Your task to perform on an android device: turn on javascript in the chrome app Image 0: 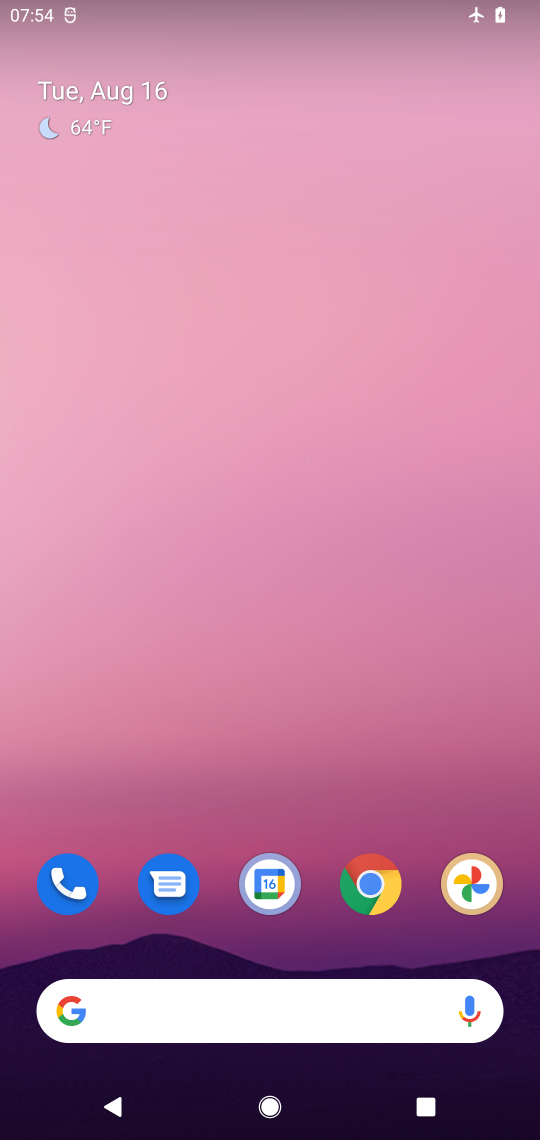
Step 0: press home button
Your task to perform on an android device: turn on javascript in the chrome app Image 1: 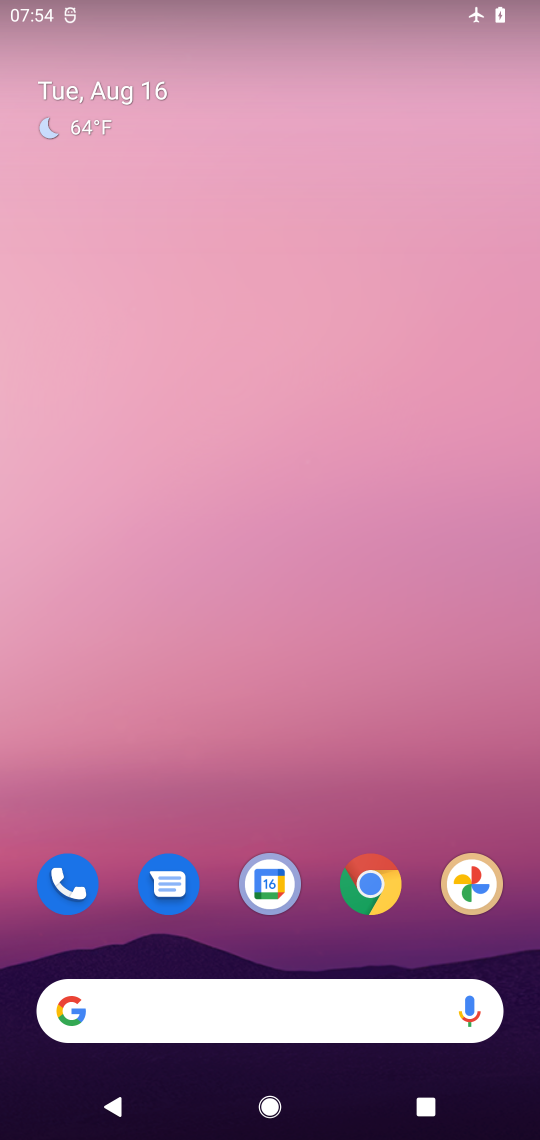
Step 1: click (376, 888)
Your task to perform on an android device: turn on javascript in the chrome app Image 2: 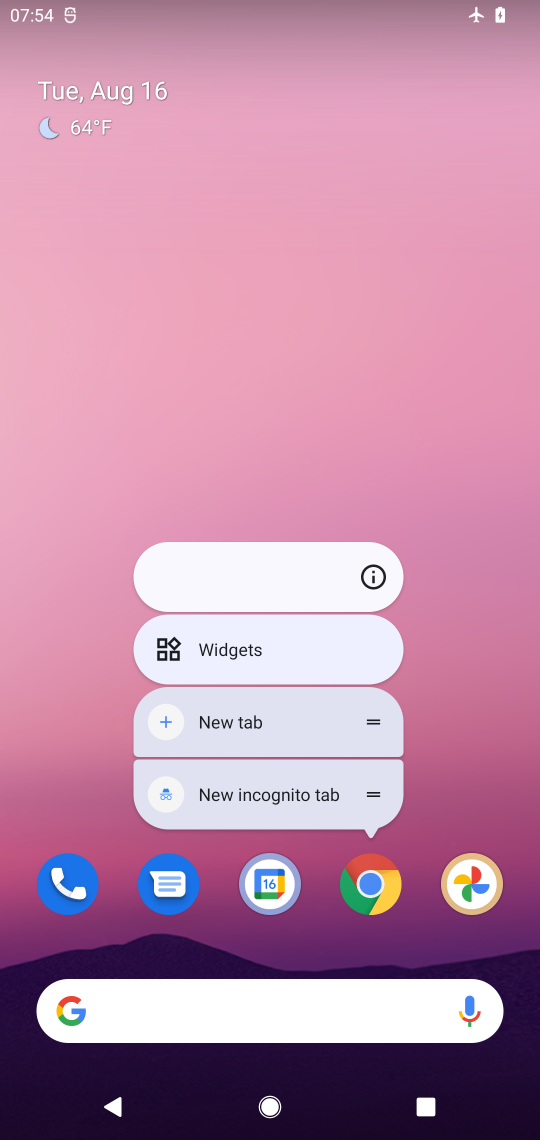
Step 2: click (402, 902)
Your task to perform on an android device: turn on javascript in the chrome app Image 3: 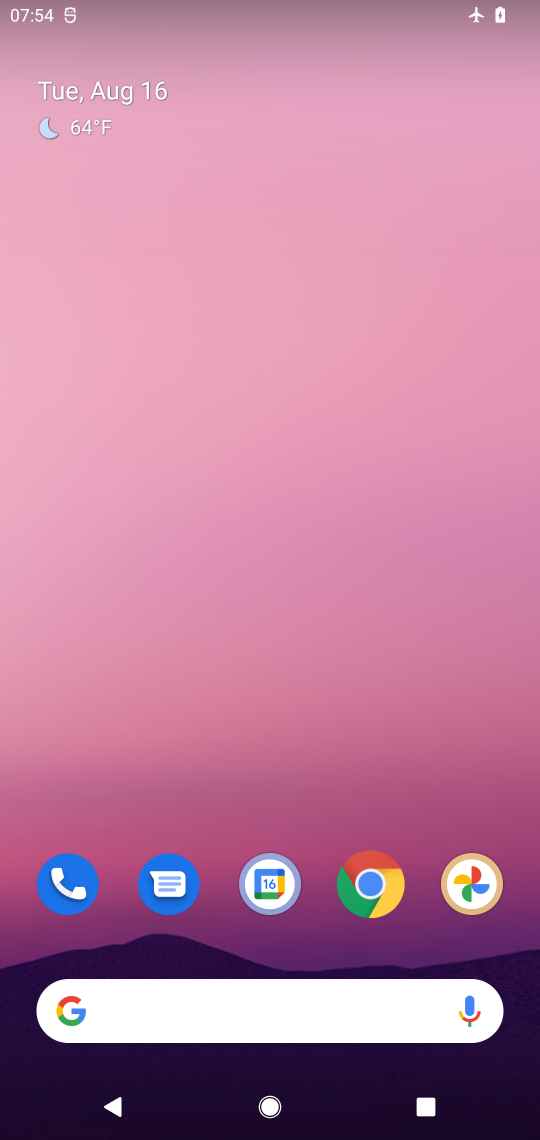
Step 3: click (373, 888)
Your task to perform on an android device: turn on javascript in the chrome app Image 4: 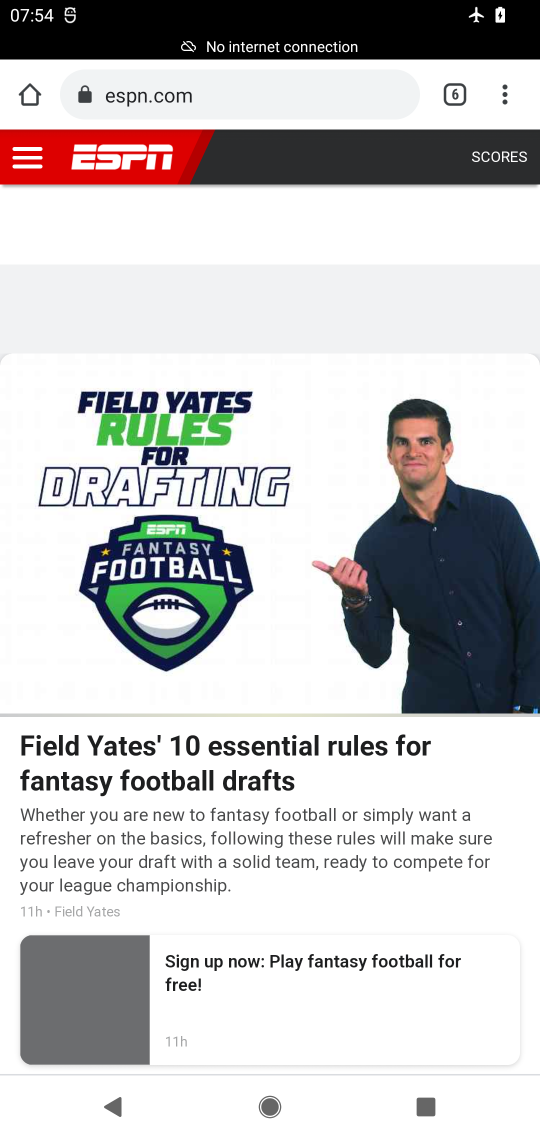
Step 4: drag from (503, 94) to (316, 803)
Your task to perform on an android device: turn on javascript in the chrome app Image 5: 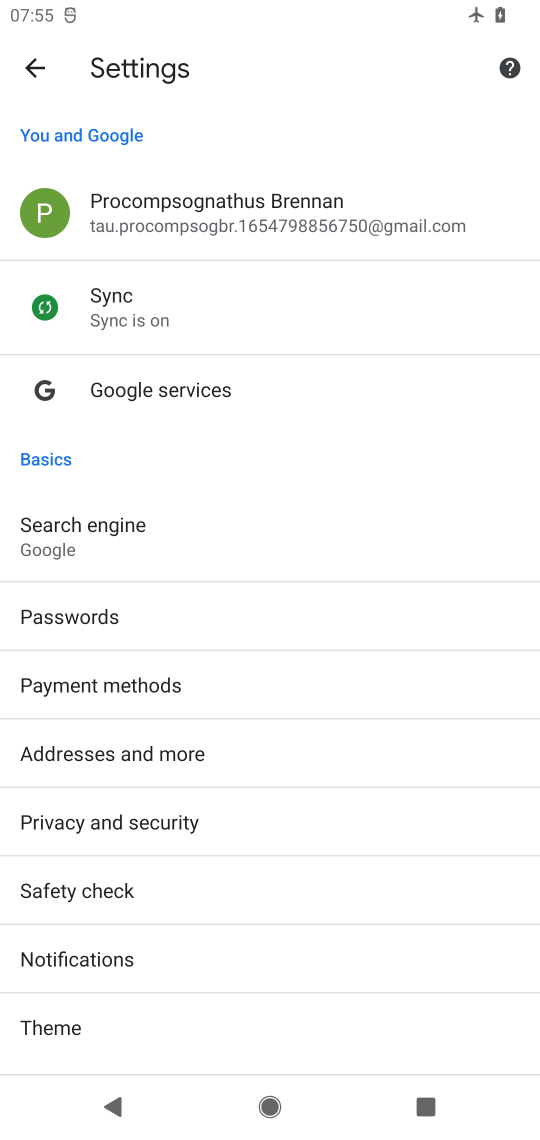
Step 5: drag from (253, 483) to (238, 6)
Your task to perform on an android device: turn on javascript in the chrome app Image 6: 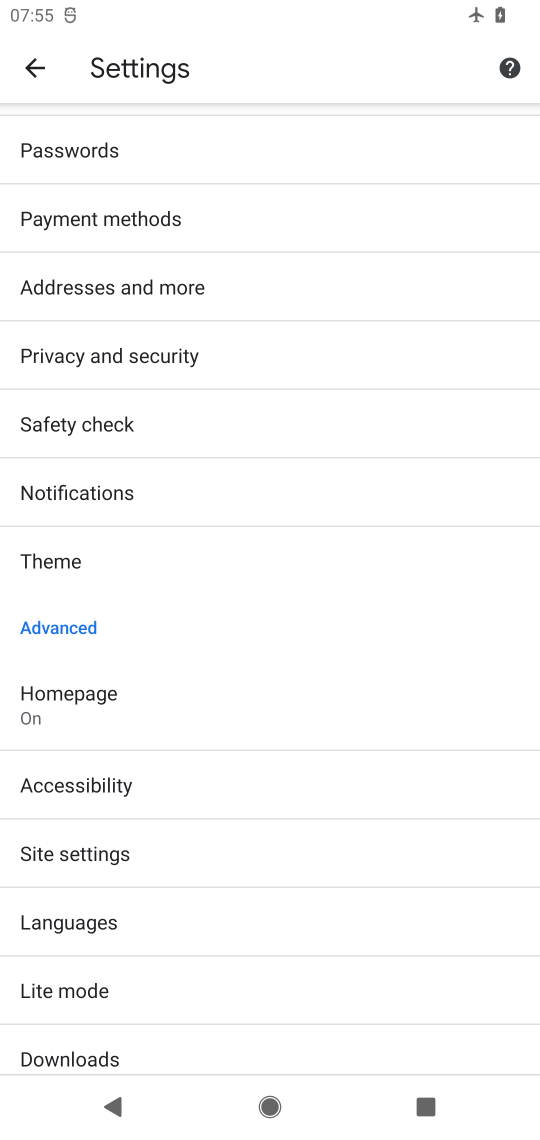
Step 6: click (112, 865)
Your task to perform on an android device: turn on javascript in the chrome app Image 7: 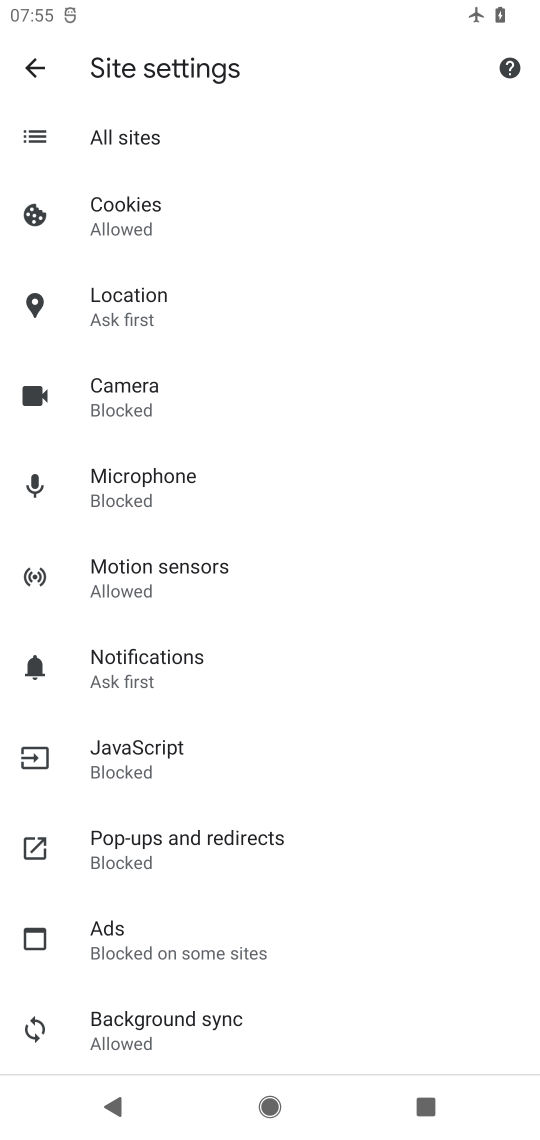
Step 7: click (345, 760)
Your task to perform on an android device: turn on javascript in the chrome app Image 8: 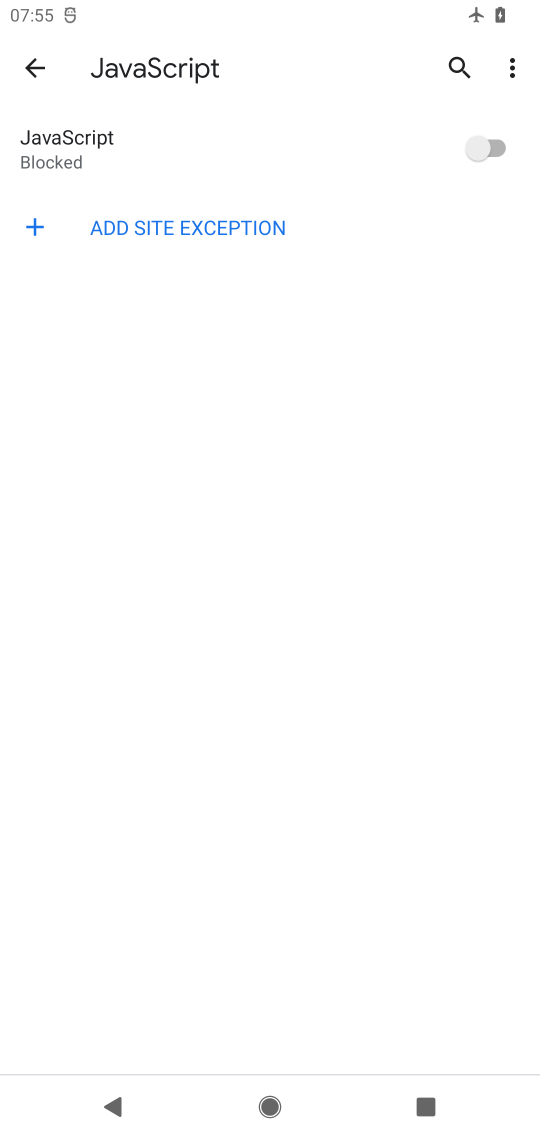
Step 8: click (506, 135)
Your task to perform on an android device: turn on javascript in the chrome app Image 9: 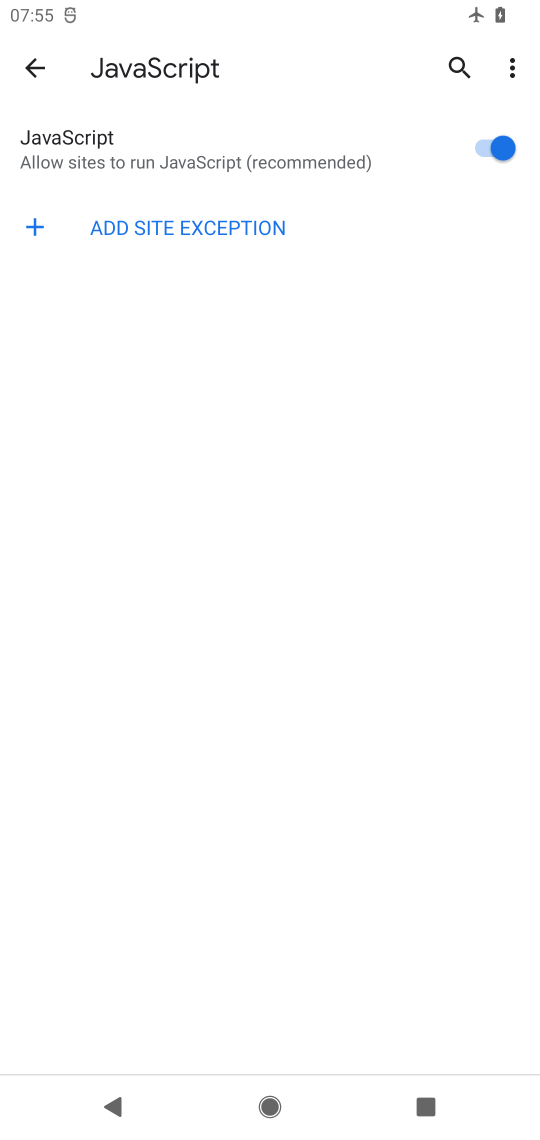
Step 9: task complete